Your task to perform on an android device: Open Wikipedia Image 0: 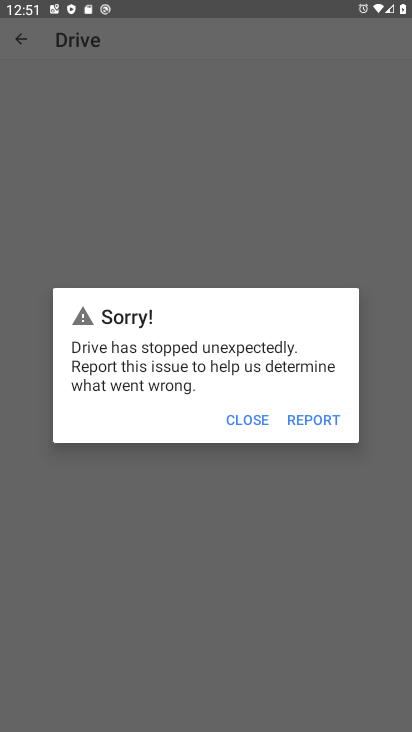
Step 0: press home button
Your task to perform on an android device: Open Wikipedia Image 1: 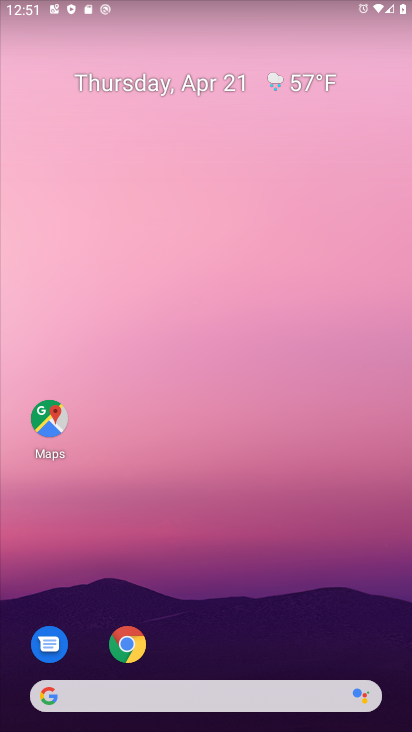
Step 1: click (117, 644)
Your task to perform on an android device: Open Wikipedia Image 2: 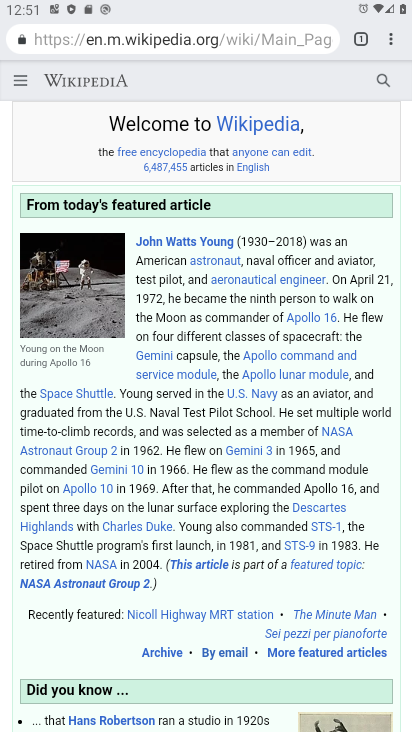
Step 2: task complete